Your task to perform on an android device: turn on wifi Image 0: 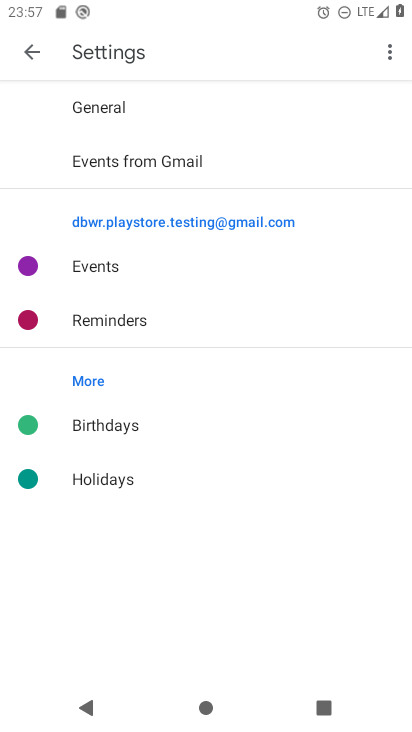
Step 0: press home button
Your task to perform on an android device: turn on wifi Image 1: 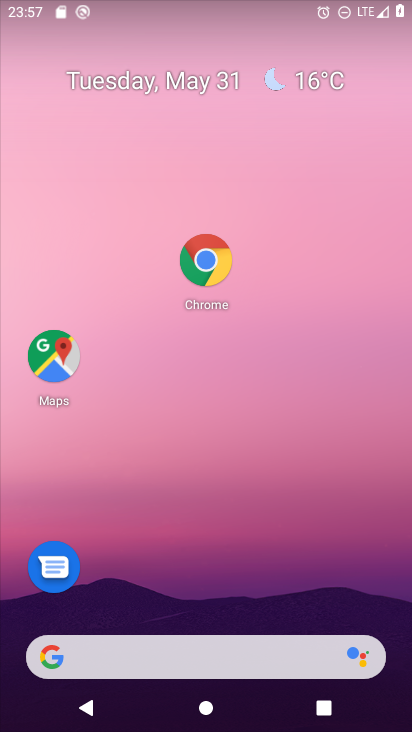
Step 1: drag from (194, 642) to (207, 140)
Your task to perform on an android device: turn on wifi Image 2: 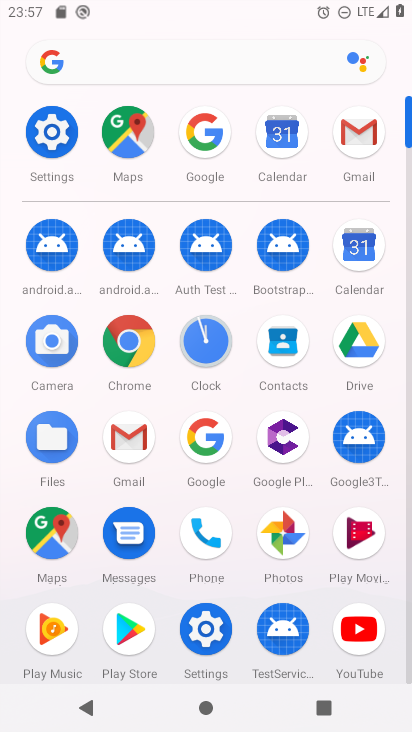
Step 2: click (56, 141)
Your task to perform on an android device: turn on wifi Image 3: 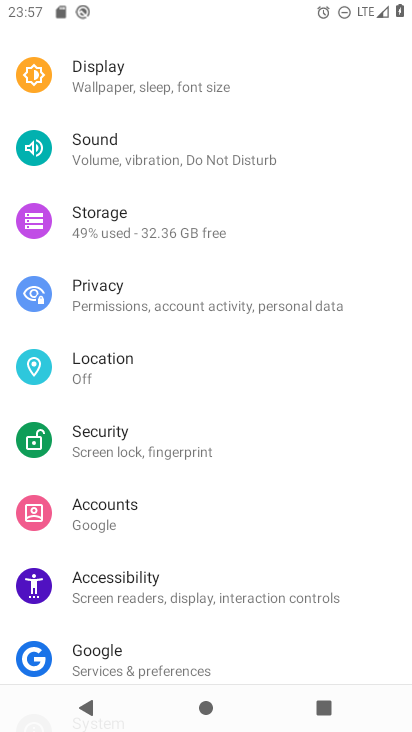
Step 3: drag from (182, 105) to (204, 577)
Your task to perform on an android device: turn on wifi Image 4: 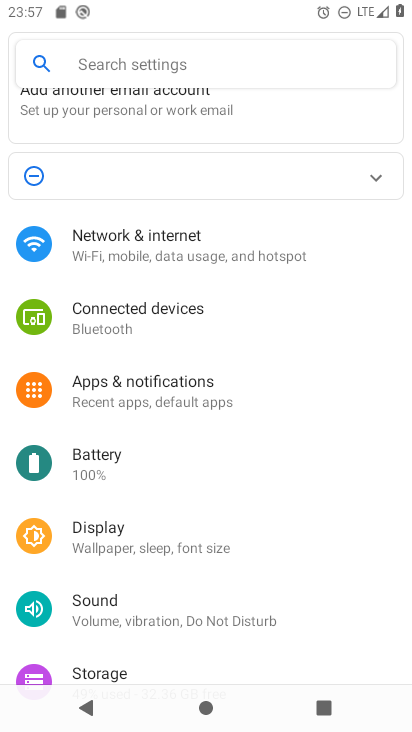
Step 4: click (176, 247)
Your task to perform on an android device: turn on wifi Image 5: 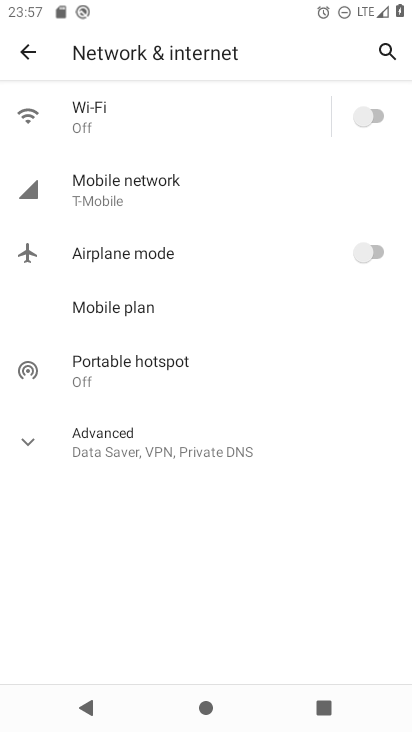
Step 5: click (368, 111)
Your task to perform on an android device: turn on wifi Image 6: 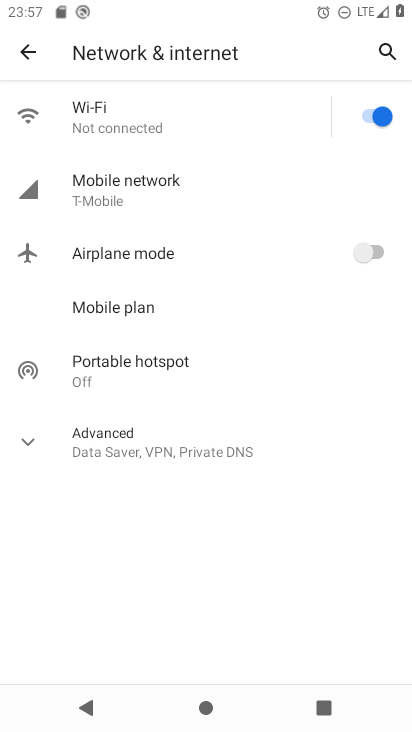
Step 6: task complete